Your task to perform on an android device: Search for "razer nari" on walmart, select the first entry, add it to the cart, then select checkout. Image 0: 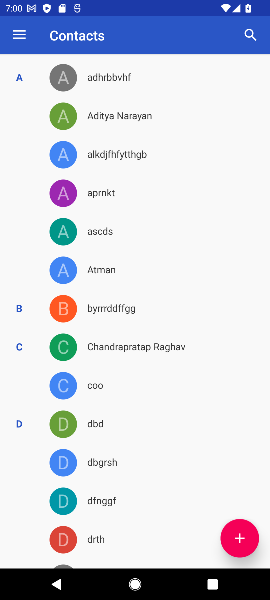
Step 0: press home button
Your task to perform on an android device: Search for "razer nari" on walmart, select the first entry, add it to the cart, then select checkout. Image 1: 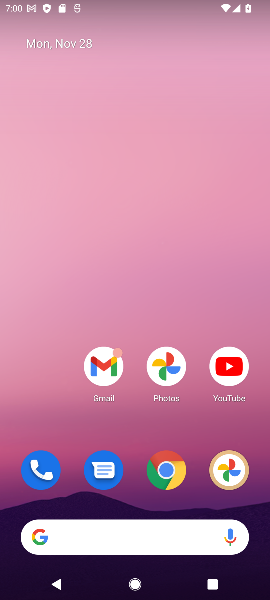
Step 1: drag from (129, 499) to (181, 4)
Your task to perform on an android device: Search for "razer nari" on walmart, select the first entry, add it to the cart, then select checkout. Image 2: 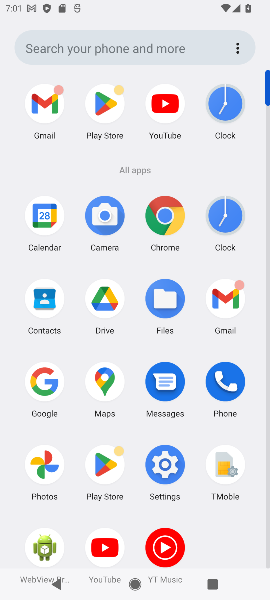
Step 2: click (164, 217)
Your task to perform on an android device: Search for "razer nari" on walmart, select the first entry, add it to the cart, then select checkout. Image 3: 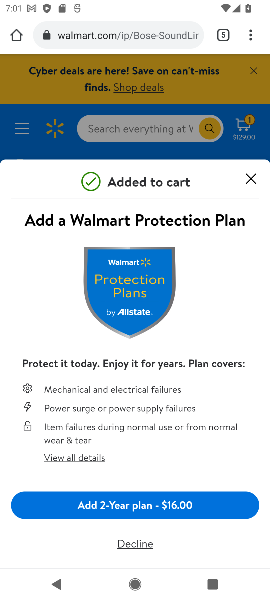
Step 3: click (250, 181)
Your task to perform on an android device: Search for "razer nari" on walmart, select the first entry, add it to the cart, then select checkout. Image 4: 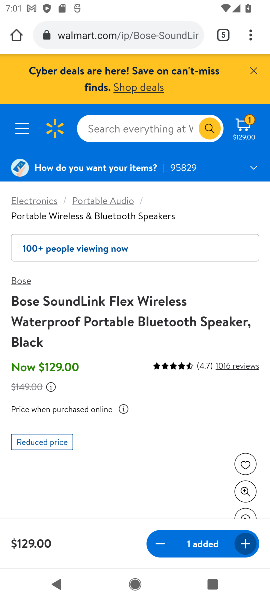
Step 4: click (127, 125)
Your task to perform on an android device: Search for "razer nari" on walmart, select the first entry, add it to the cart, then select checkout. Image 5: 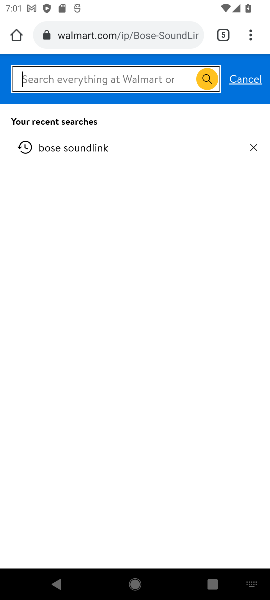
Step 5: type "razer nari"
Your task to perform on an android device: Search for "razer nari" on walmart, select the first entry, add it to the cart, then select checkout. Image 6: 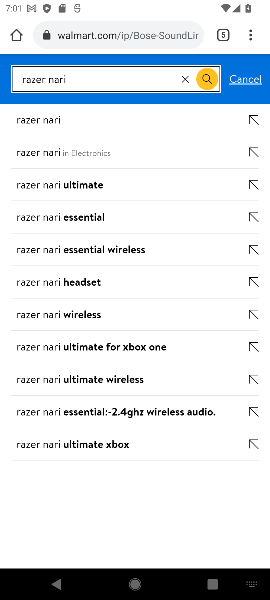
Step 6: click (36, 113)
Your task to perform on an android device: Search for "razer nari" on walmart, select the first entry, add it to the cart, then select checkout. Image 7: 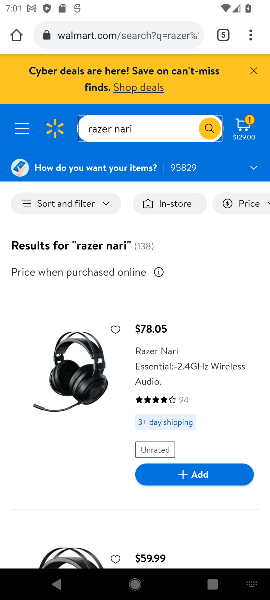
Step 7: click (184, 473)
Your task to perform on an android device: Search for "razer nari" on walmart, select the first entry, add it to the cart, then select checkout. Image 8: 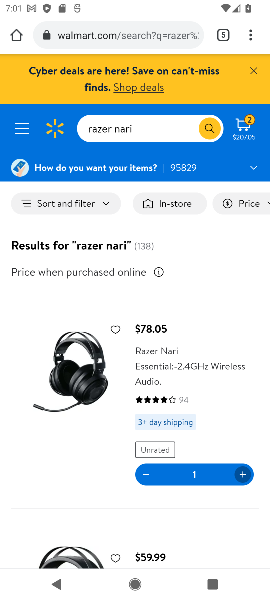
Step 8: click (241, 124)
Your task to perform on an android device: Search for "razer nari" on walmart, select the first entry, add it to the cart, then select checkout. Image 9: 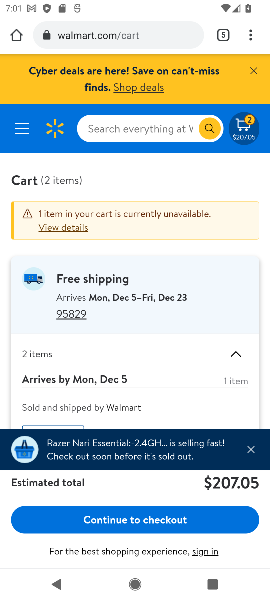
Step 9: click (120, 523)
Your task to perform on an android device: Search for "razer nari" on walmart, select the first entry, add it to the cart, then select checkout. Image 10: 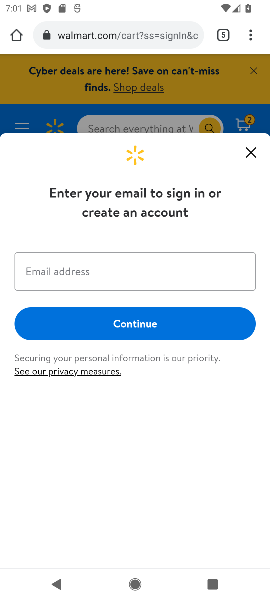
Step 10: task complete